Your task to perform on an android device: toggle show notifications on the lock screen Image 0: 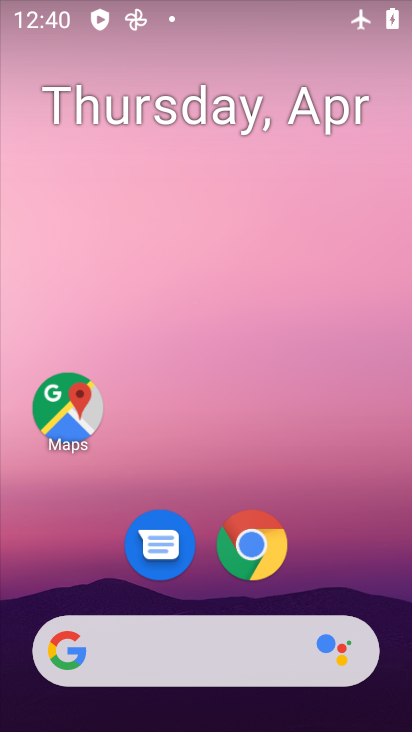
Step 0: drag from (330, 456) to (270, 119)
Your task to perform on an android device: toggle show notifications on the lock screen Image 1: 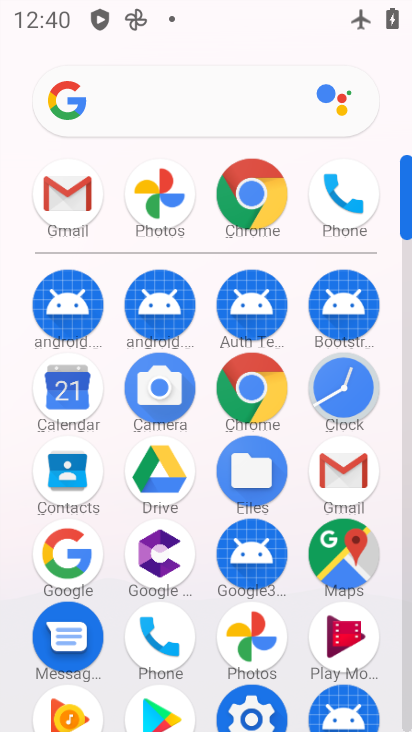
Step 1: drag from (314, 568) to (232, 132)
Your task to perform on an android device: toggle show notifications on the lock screen Image 2: 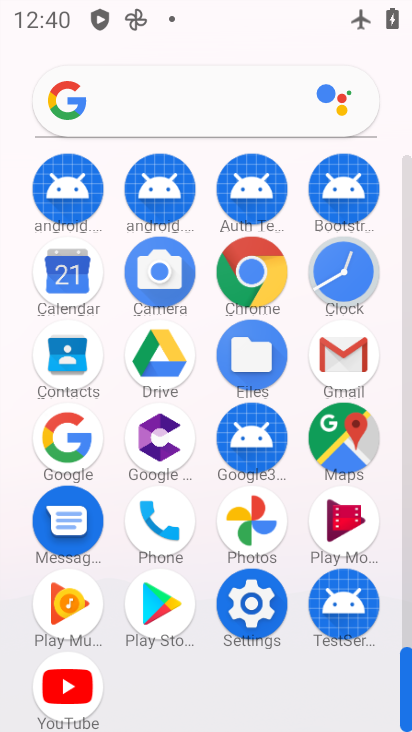
Step 2: click (267, 565)
Your task to perform on an android device: toggle show notifications on the lock screen Image 3: 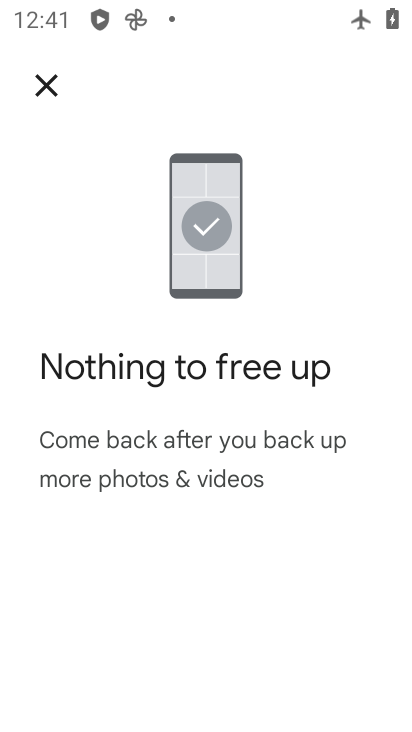
Step 3: press home button
Your task to perform on an android device: toggle show notifications on the lock screen Image 4: 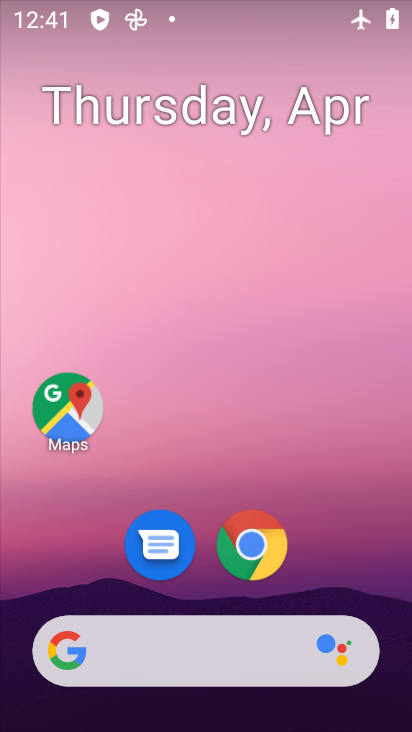
Step 4: drag from (303, 424) to (270, 161)
Your task to perform on an android device: toggle show notifications on the lock screen Image 5: 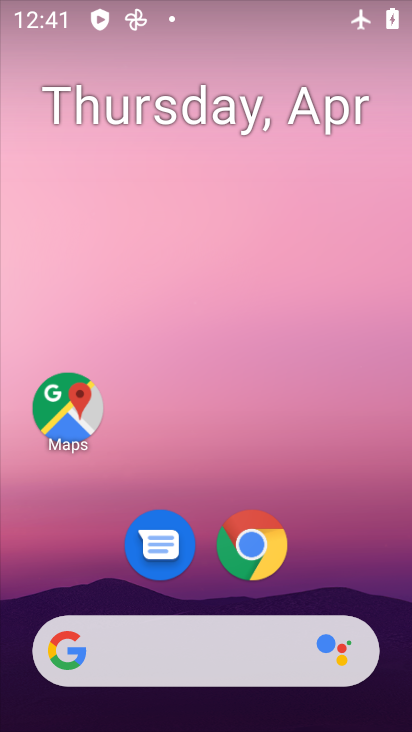
Step 5: drag from (338, 489) to (263, 58)
Your task to perform on an android device: toggle show notifications on the lock screen Image 6: 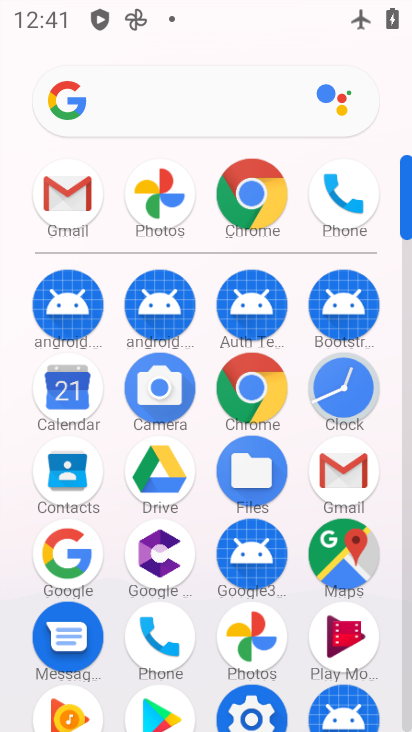
Step 6: click (256, 705)
Your task to perform on an android device: toggle show notifications on the lock screen Image 7: 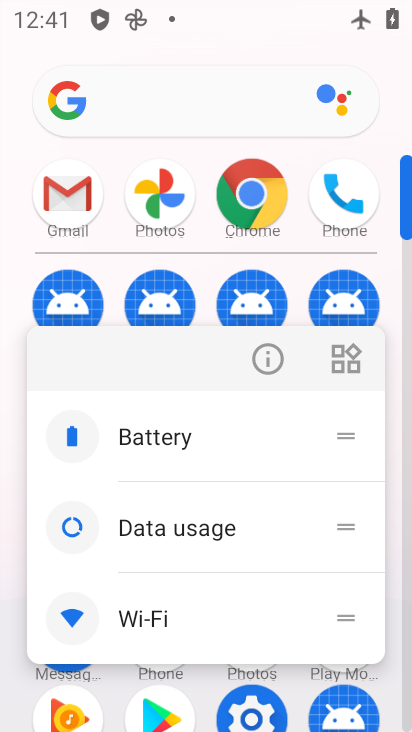
Step 7: click (256, 701)
Your task to perform on an android device: toggle show notifications on the lock screen Image 8: 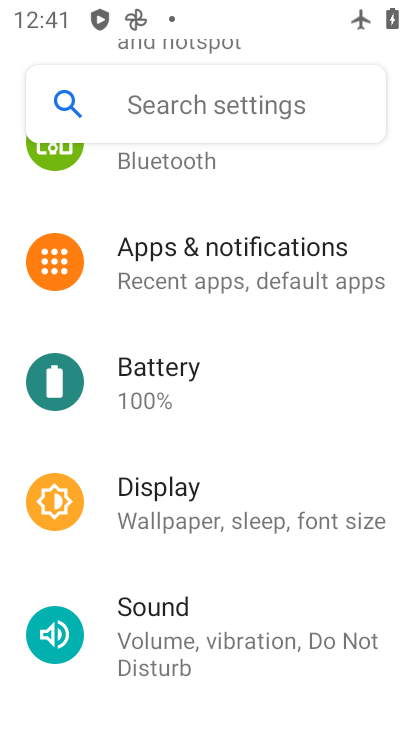
Step 8: click (232, 264)
Your task to perform on an android device: toggle show notifications on the lock screen Image 9: 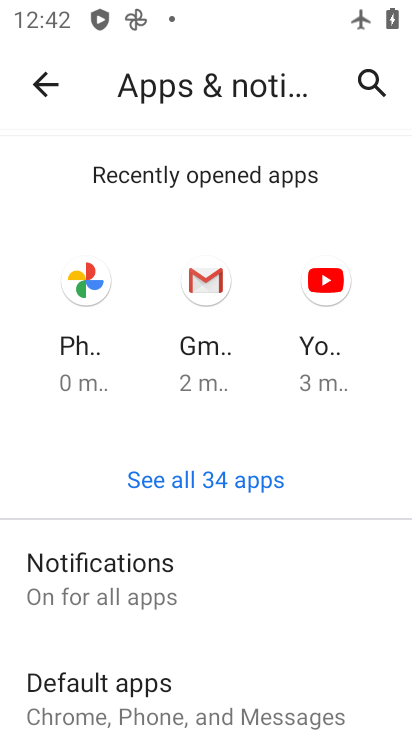
Step 9: drag from (261, 629) to (184, 124)
Your task to perform on an android device: toggle show notifications on the lock screen Image 10: 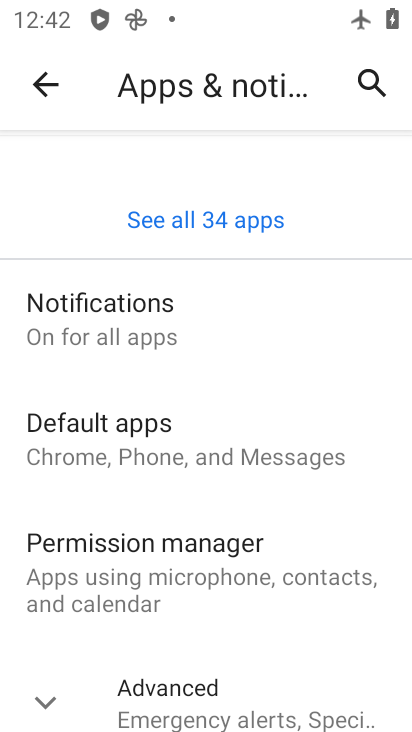
Step 10: click (182, 321)
Your task to perform on an android device: toggle show notifications on the lock screen Image 11: 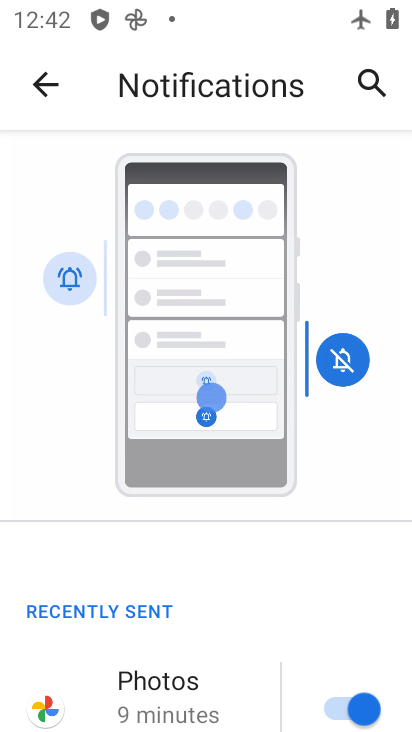
Step 11: drag from (247, 610) to (214, 52)
Your task to perform on an android device: toggle show notifications on the lock screen Image 12: 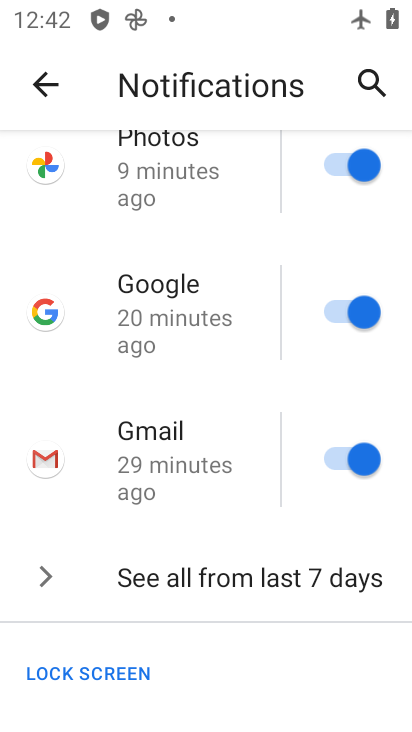
Step 12: drag from (219, 658) to (175, 71)
Your task to perform on an android device: toggle show notifications on the lock screen Image 13: 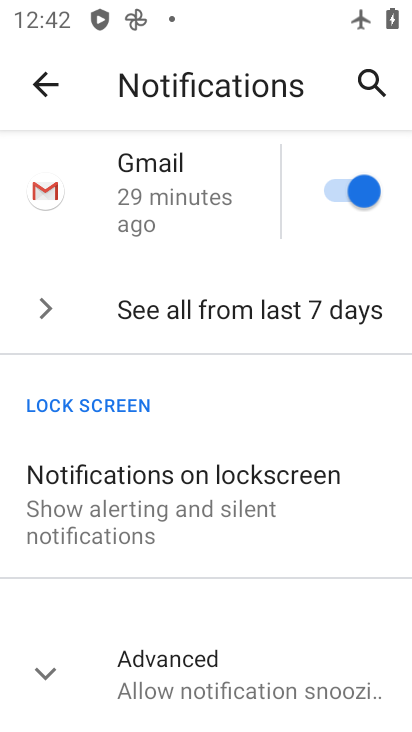
Step 13: click (183, 496)
Your task to perform on an android device: toggle show notifications on the lock screen Image 14: 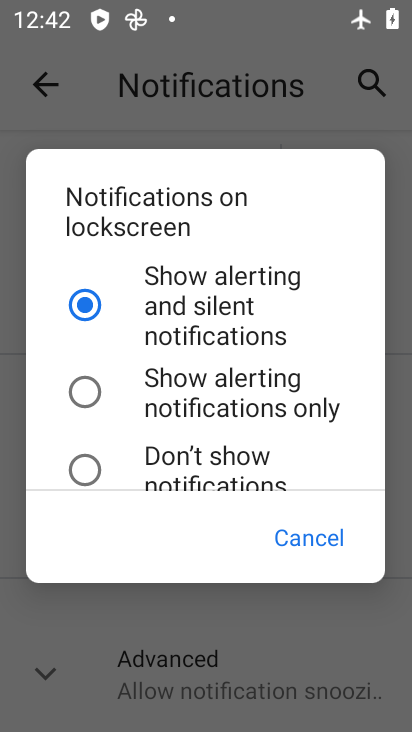
Step 14: click (185, 389)
Your task to perform on an android device: toggle show notifications on the lock screen Image 15: 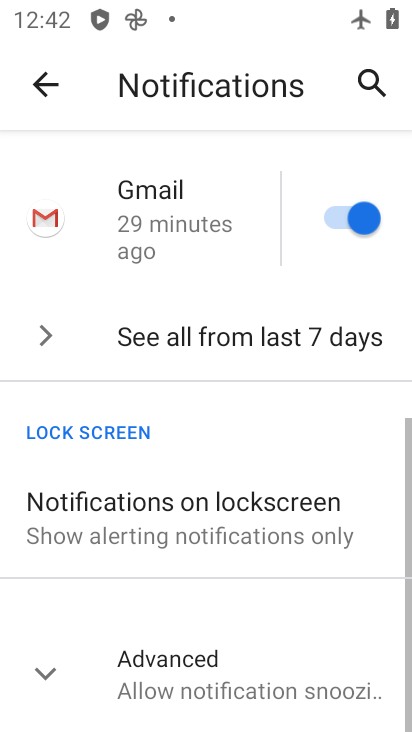
Step 15: task complete